Your task to perform on an android device: Open the calendar app, open the side menu, and click the "Day" option Image 0: 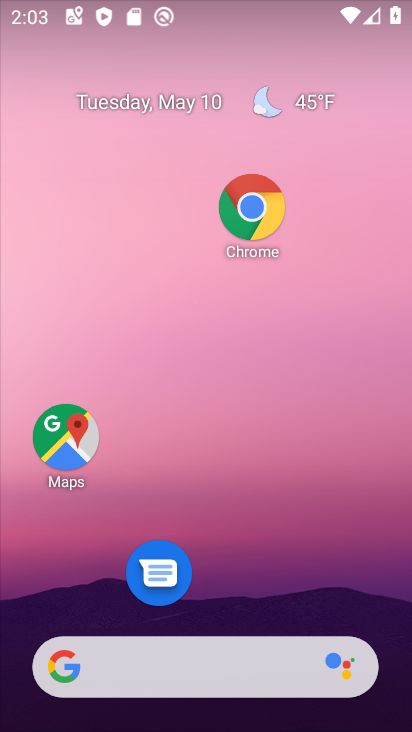
Step 0: drag from (224, 580) to (280, 11)
Your task to perform on an android device: Open the calendar app, open the side menu, and click the "Day" option Image 1: 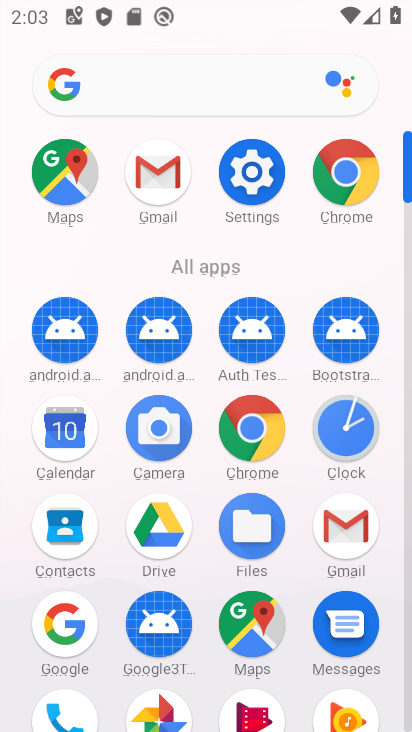
Step 1: click (82, 450)
Your task to perform on an android device: Open the calendar app, open the side menu, and click the "Day" option Image 2: 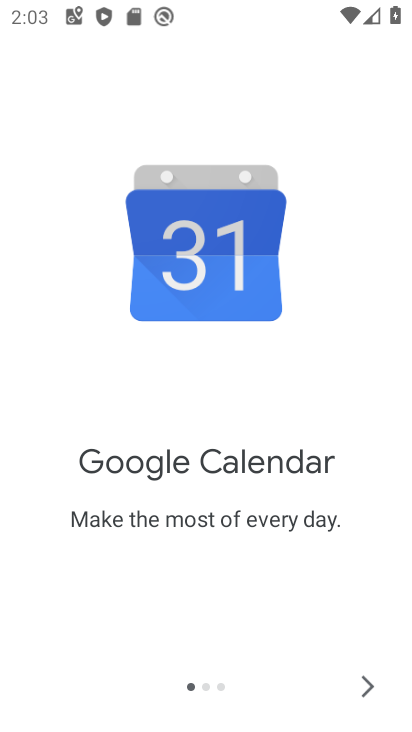
Step 2: click (368, 690)
Your task to perform on an android device: Open the calendar app, open the side menu, and click the "Day" option Image 3: 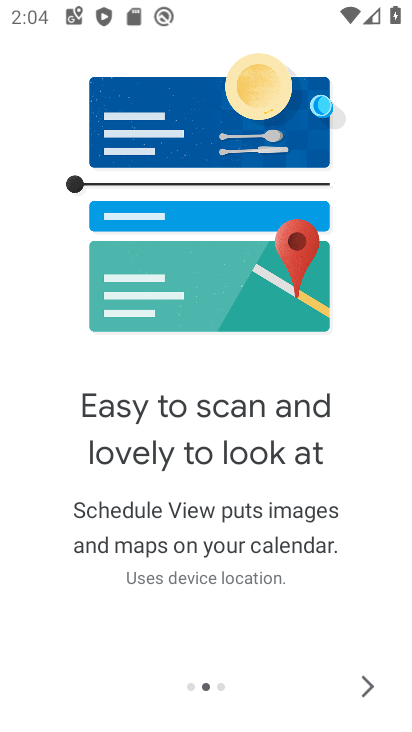
Step 3: click (368, 690)
Your task to perform on an android device: Open the calendar app, open the side menu, and click the "Day" option Image 4: 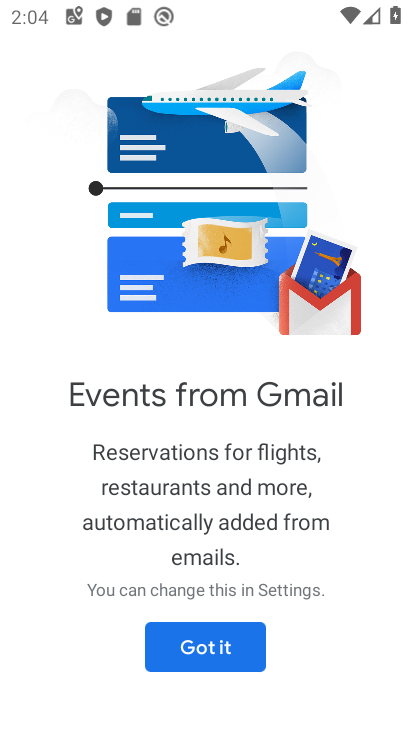
Step 4: click (238, 652)
Your task to perform on an android device: Open the calendar app, open the side menu, and click the "Day" option Image 5: 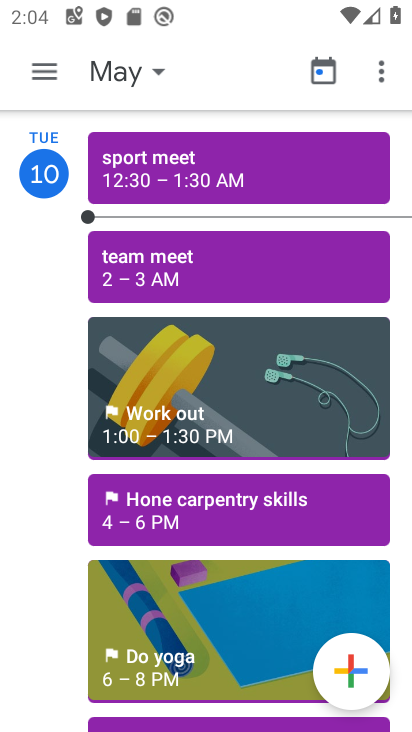
Step 5: click (51, 61)
Your task to perform on an android device: Open the calendar app, open the side menu, and click the "Day" option Image 6: 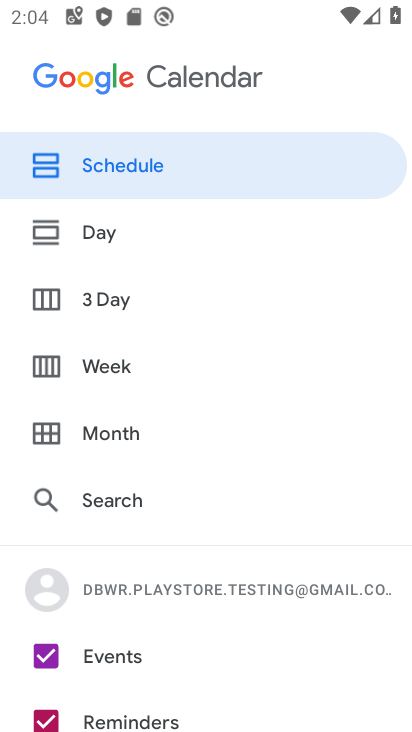
Step 6: click (123, 236)
Your task to perform on an android device: Open the calendar app, open the side menu, and click the "Day" option Image 7: 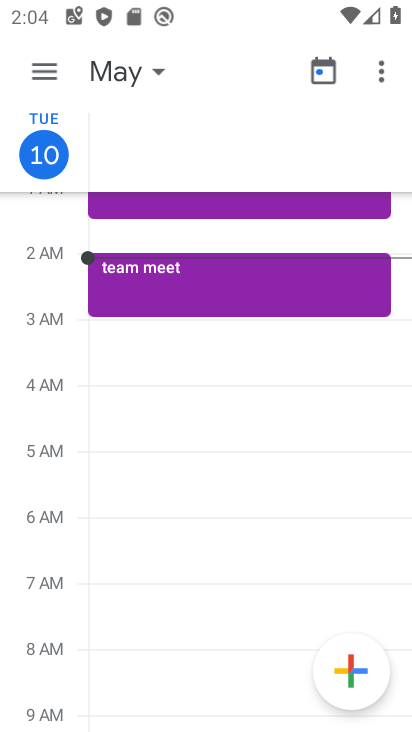
Step 7: task complete